Your task to perform on an android device: Set the phone to "Do not disturb". Image 0: 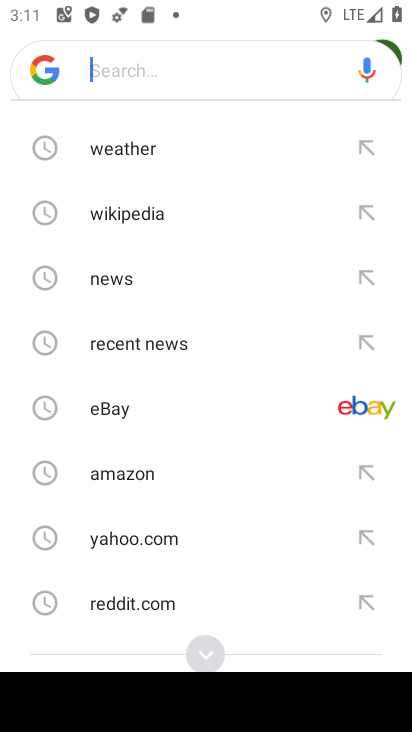
Step 0: press home button
Your task to perform on an android device: Set the phone to "Do not disturb". Image 1: 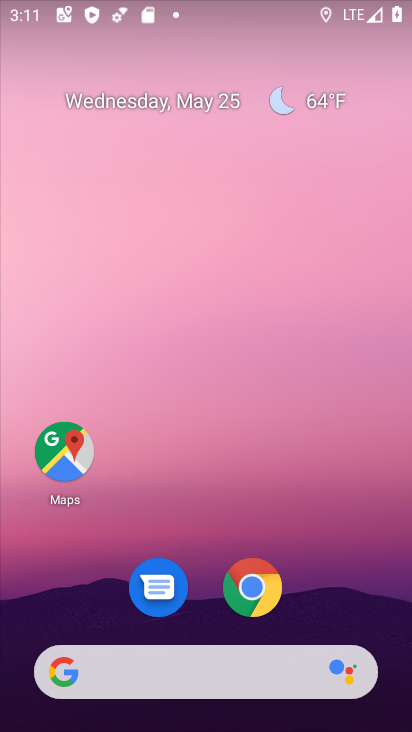
Step 1: drag from (366, 603) to (308, 174)
Your task to perform on an android device: Set the phone to "Do not disturb". Image 2: 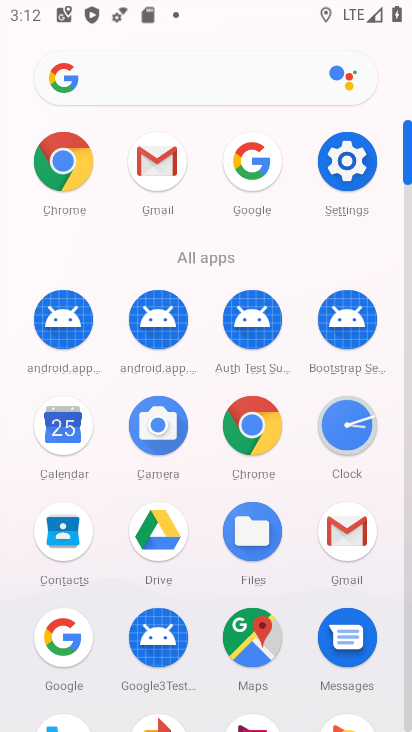
Step 2: click (346, 160)
Your task to perform on an android device: Set the phone to "Do not disturb". Image 3: 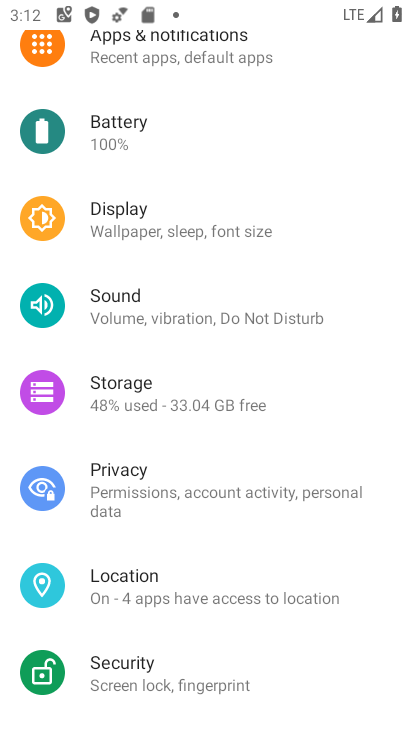
Step 3: click (288, 318)
Your task to perform on an android device: Set the phone to "Do not disturb". Image 4: 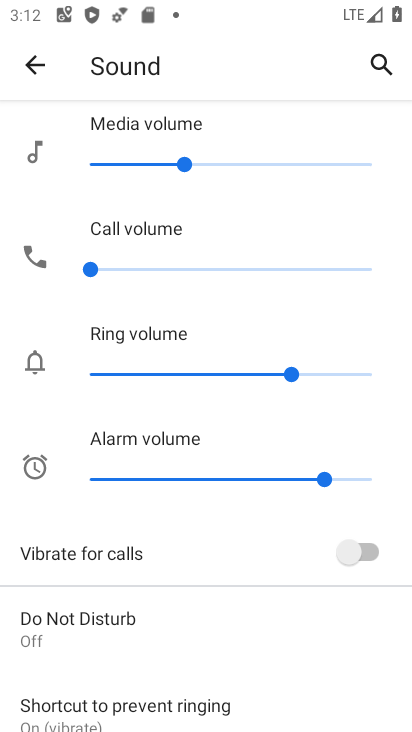
Step 4: click (271, 635)
Your task to perform on an android device: Set the phone to "Do not disturb". Image 5: 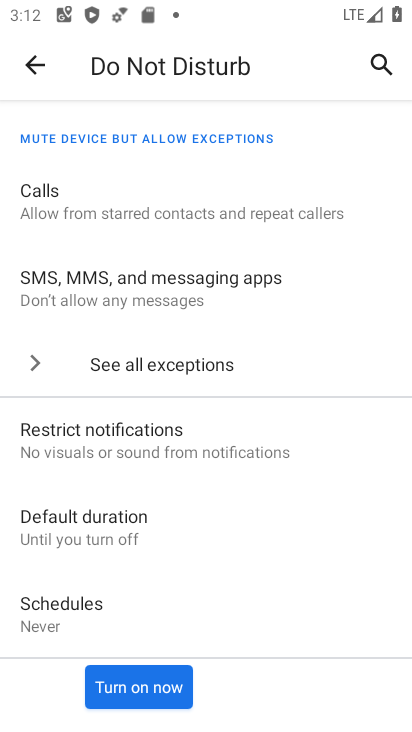
Step 5: click (157, 689)
Your task to perform on an android device: Set the phone to "Do not disturb". Image 6: 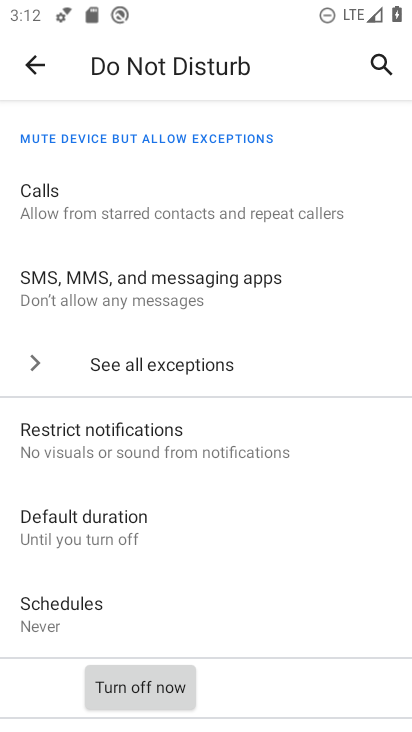
Step 6: task complete